Your task to perform on an android device: Go to eBay Image 0: 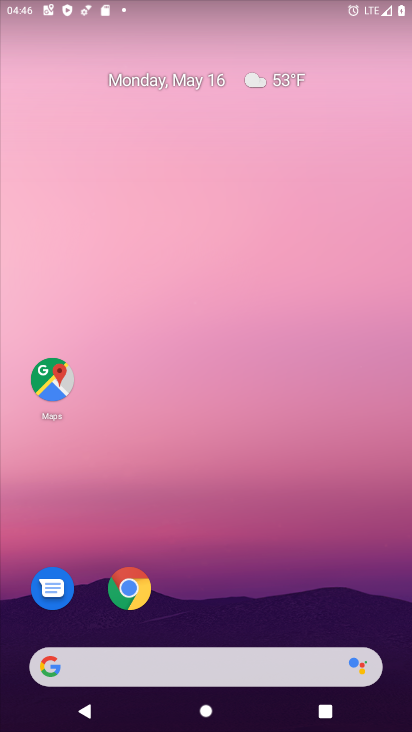
Step 0: drag from (266, 560) to (249, 14)
Your task to perform on an android device: Go to eBay Image 1: 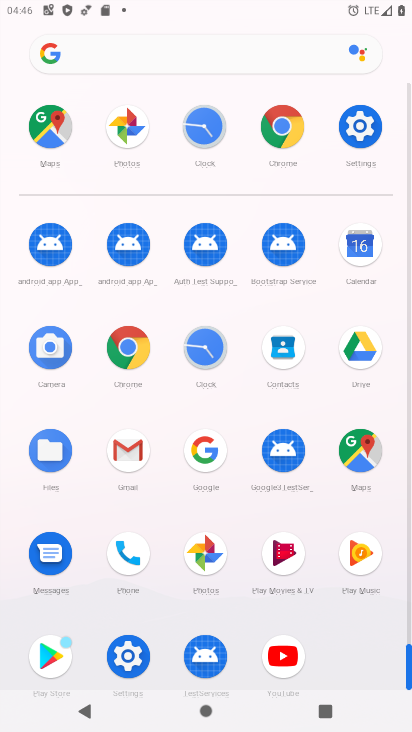
Step 1: drag from (0, 308) to (6, 262)
Your task to perform on an android device: Go to eBay Image 2: 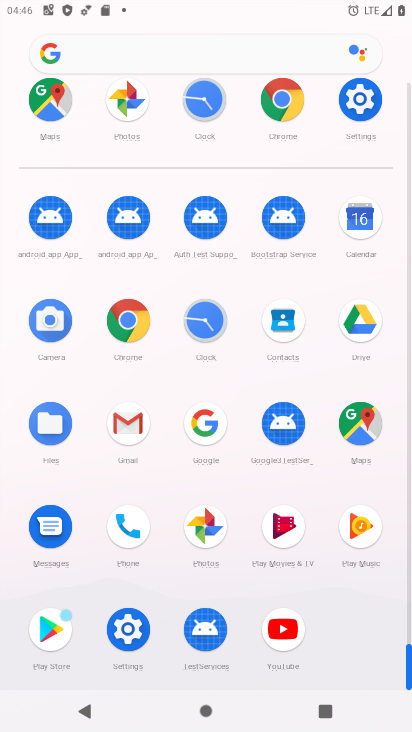
Step 2: click (131, 315)
Your task to perform on an android device: Go to eBay Image 3: 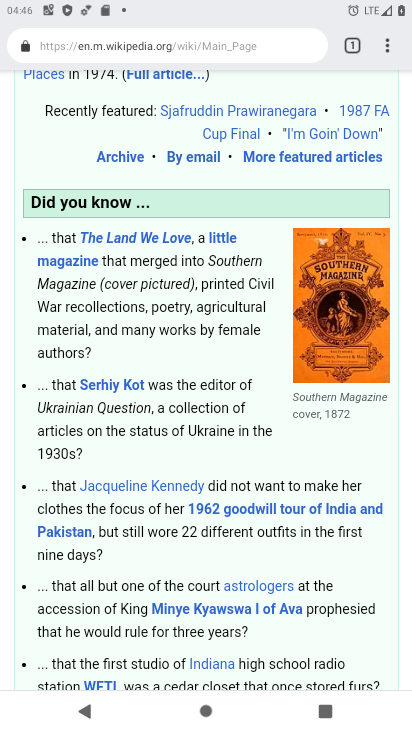
Step 3: click (180, 49)
Your task to perform on an android device: Go to eBay Image 4: 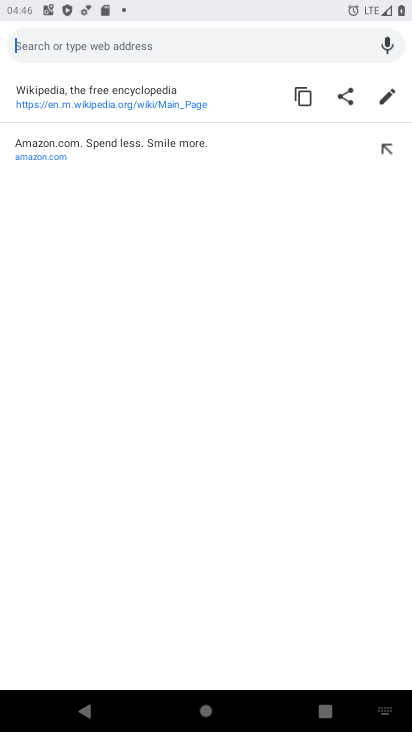
Step 4: click (182, 39)
Your task to perform on an android device: Go to eBay Image 5: 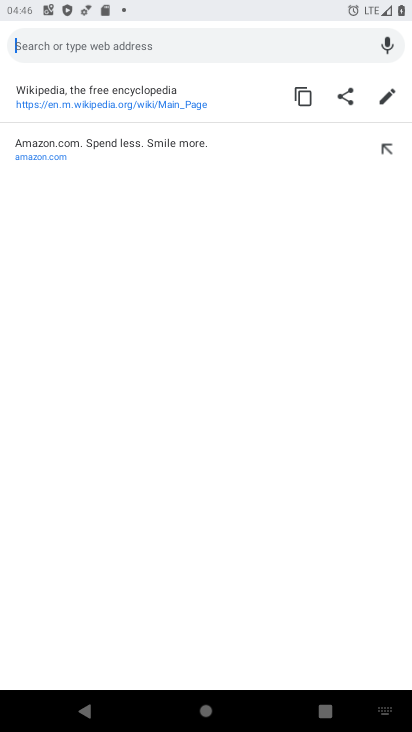
Step 5: type "eBay"
Your task to perform on an android device: Go to eBay Image 6: 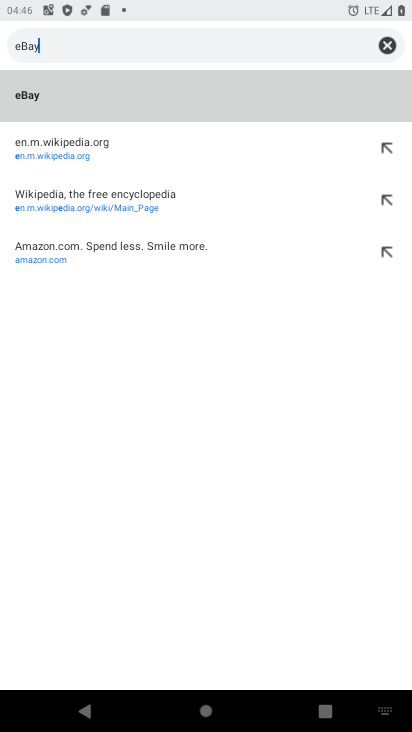
Step 6: type ""
Your task to perform on an android device: Go to eBay Image 7: 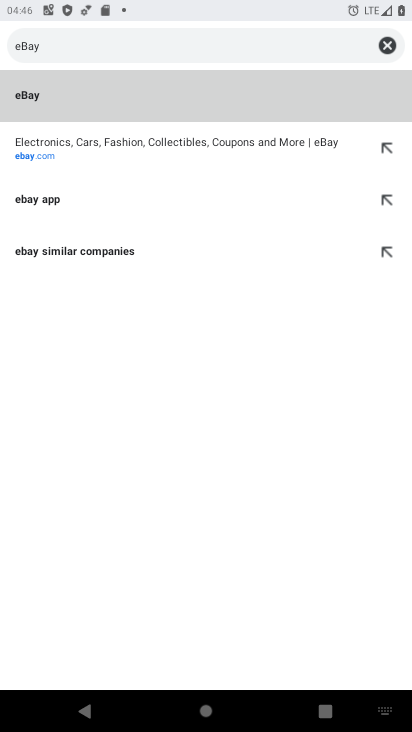
Step 7: click (44, 132)
Your task to perform on an android device: Go to eBay Image 8: 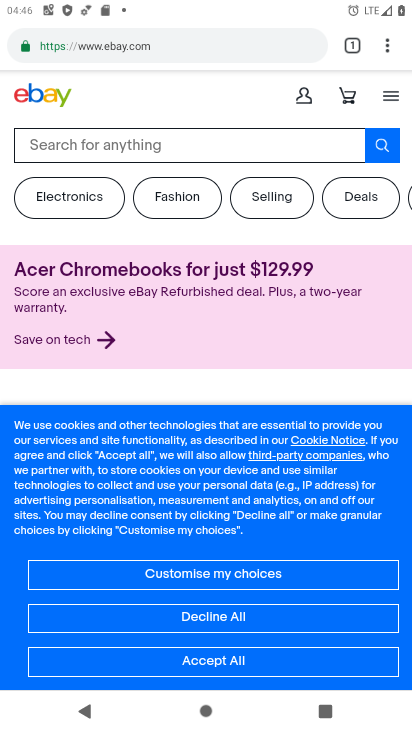
Step 8: task complete